Your task to perform on an android device: Open Chrome and go to settings Image 0: 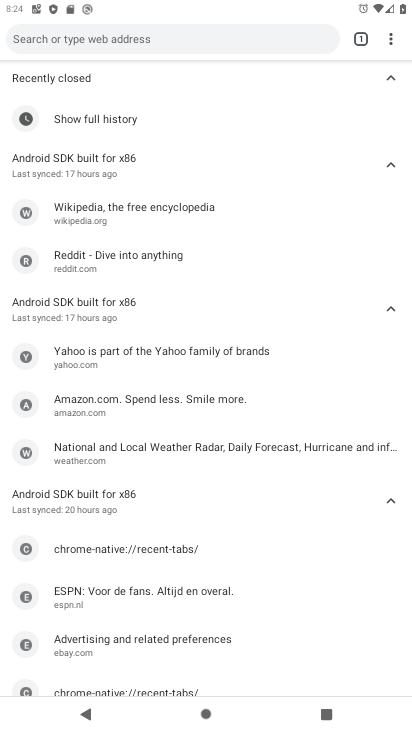
Step 0: click (397, 25)
Your task to perform on an android device: Open Chrome and go to settings Image 1: 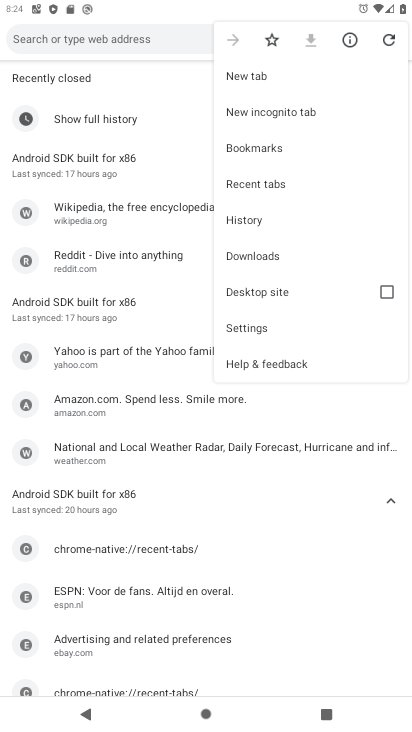
Step 1: click (289, 318)
Your task to perform on an android device: Open Chrome and go to settings Image 2: 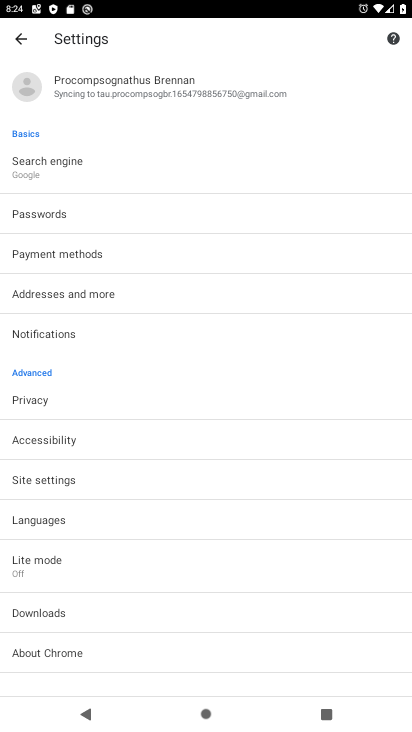
Step 2: task complete